Your task to perform on an android device: check battery use Image 0: 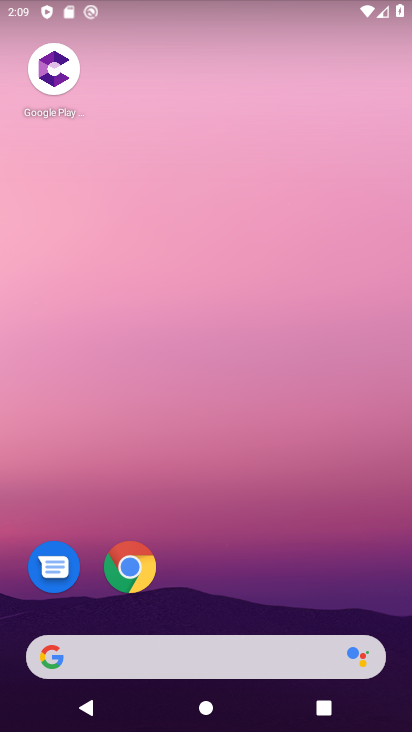
Step 0: drag from (208, 561) to (232, 91)
Your task to perform on an android device: check battery use Image 1: 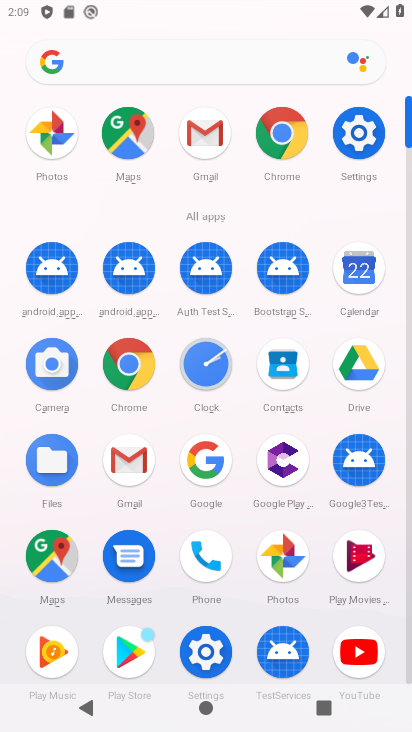
Step 1: click (356, 138)
Your task to perform on an android device: check battery use Image 2: 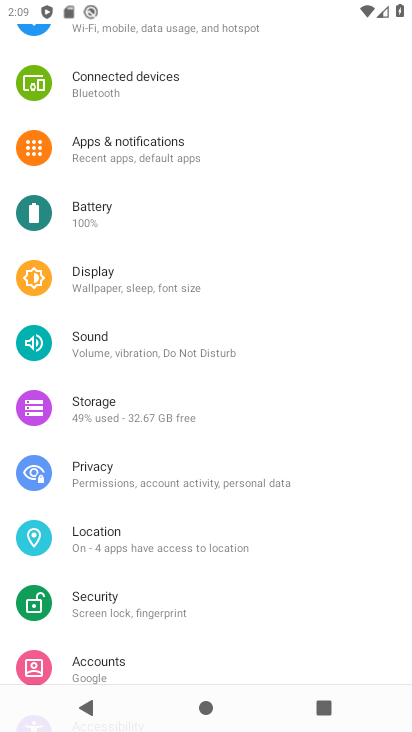
Step 2: click (115, 212)
Your task to perform on an android device: check battery use Image 3: 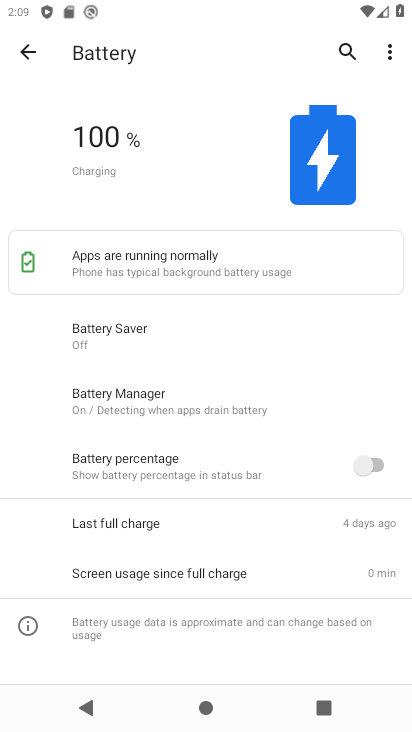
Step 3: click (391, 53)
Your task to perform on an android device: check battery use Image 4: 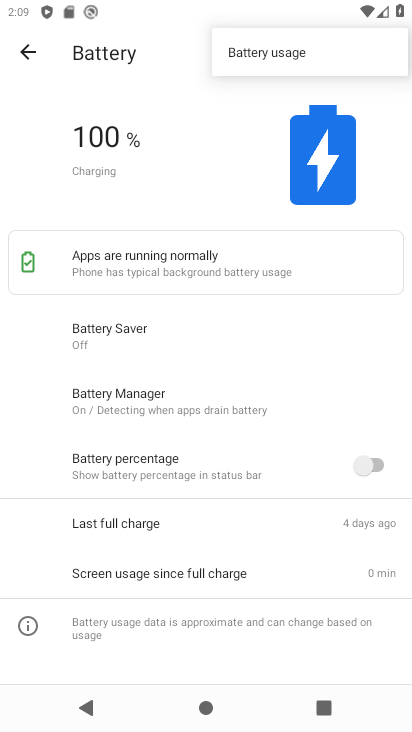
Step 4: click (307, 55)
Your task to perform on an android device: check battery use Image 5: 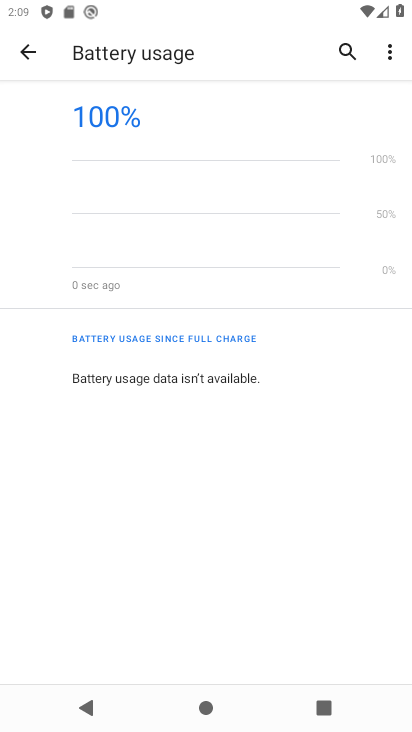
Step 5: task complete